Your task to perform on an android device: delete the emails in spam in the gmail app Image 0: 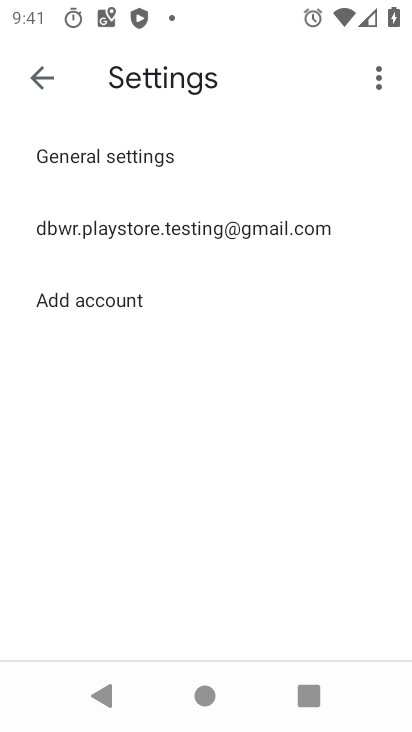
Step 0: press home button
Your task to perform on an android device: delete the emails in spam in the gmail app Image 1: 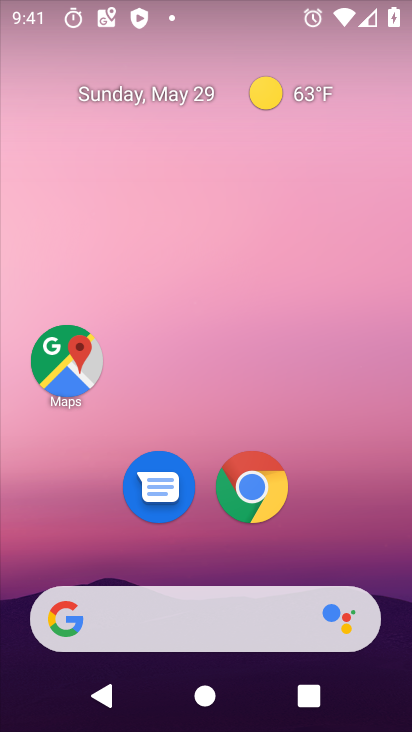
Step 1: drag from (223, 551) to (406, 116)
Your task to perform on an android device: delete the emails in spam in the gmail app Image 2: 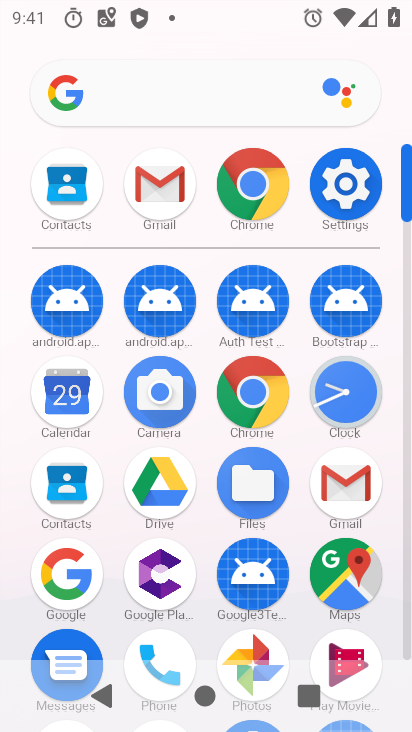
Step 2: drag from (254, 537) to (254, 322)
Your task to perform on an android device: delete the emails in spam in the gmail app Image 3: 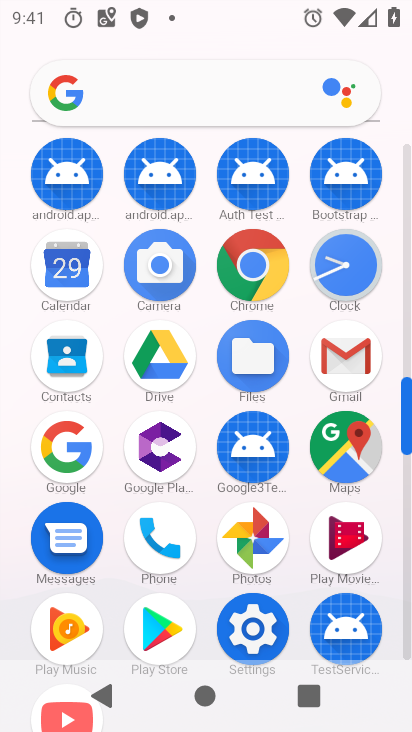
Step 3: click (358, 375)
Your task to perform on an android device: delete the emails in spam in the gmail app Image 4: 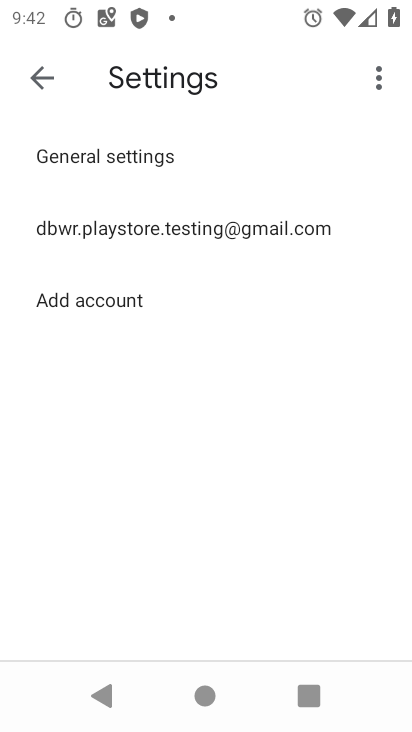
Step 4: press home button
Your task to perform on an android device: delete the emails in spam in the gmail app Image 5: 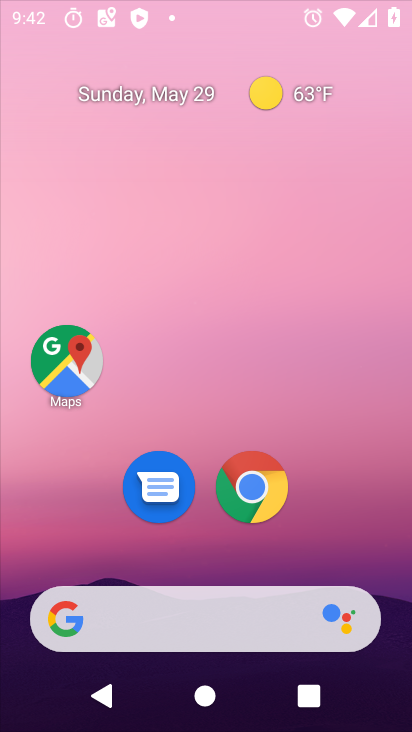
Step 5: drag from (192, 597) to (257, 107)
Your task to perform on an android device: delete the emails in spam in the gmail app Image 6: 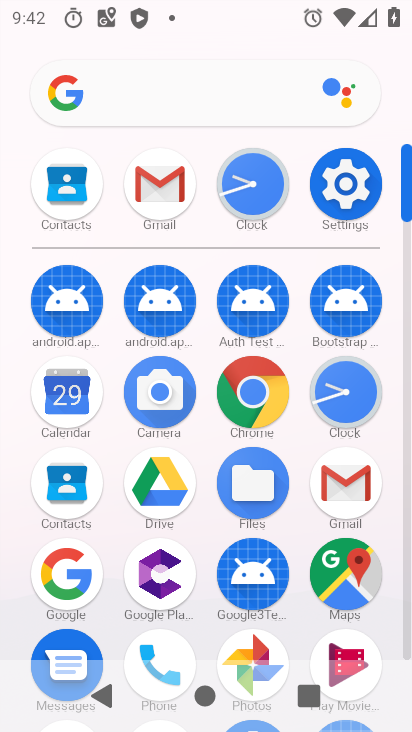
Step 6: click (361, 487)
Your task to perform on an android device: delete the emails in spam in the gmail app Image 7: 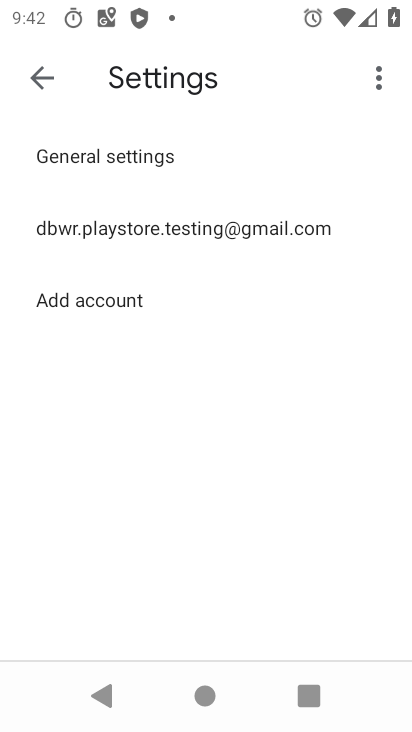
Step 7: click (27, 76)
Your task to perform on an android device: delete the emails in spam in the gmail app Image 8: 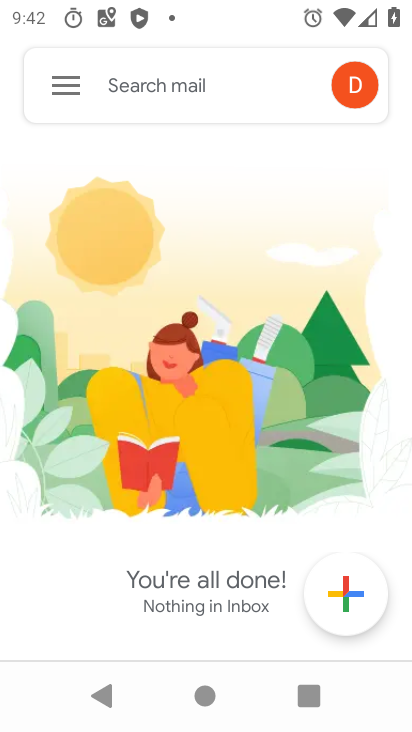
Step 8: click (75, 78)
Your task to perform on an android device: delete the emails in spam in the gmail app Image 9: 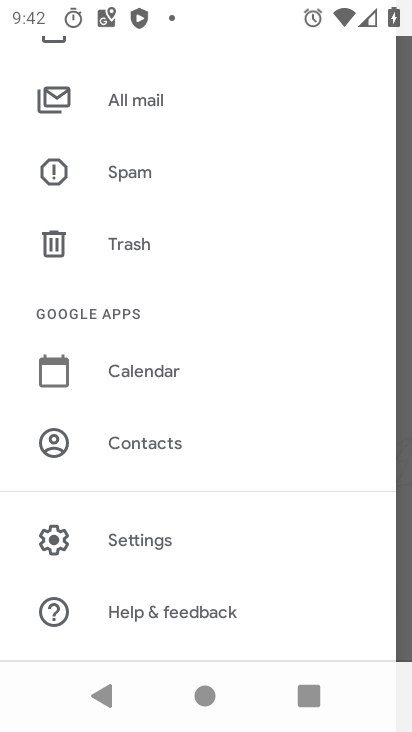
Step 9: click (157, 182)
Your task to perform on an android device: delete the emails in spam in the gmail app Image 10: 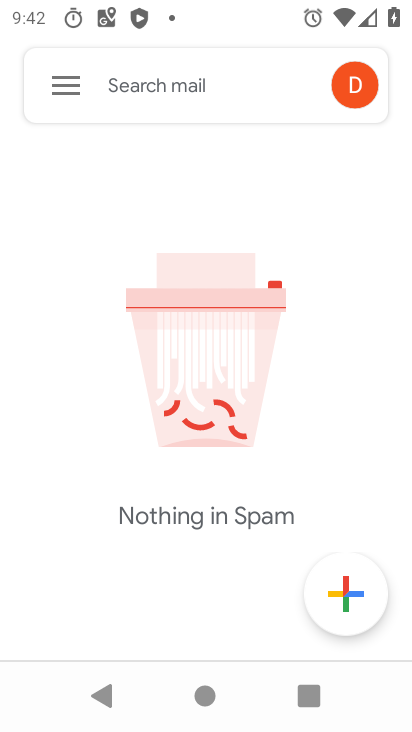
Step 10: task complete